Your task to perform on an android device: Empty the shopping cart on newegg.com. Add usb-c to usb-b to the cart on newegg.com, then select checkout. Image 0: 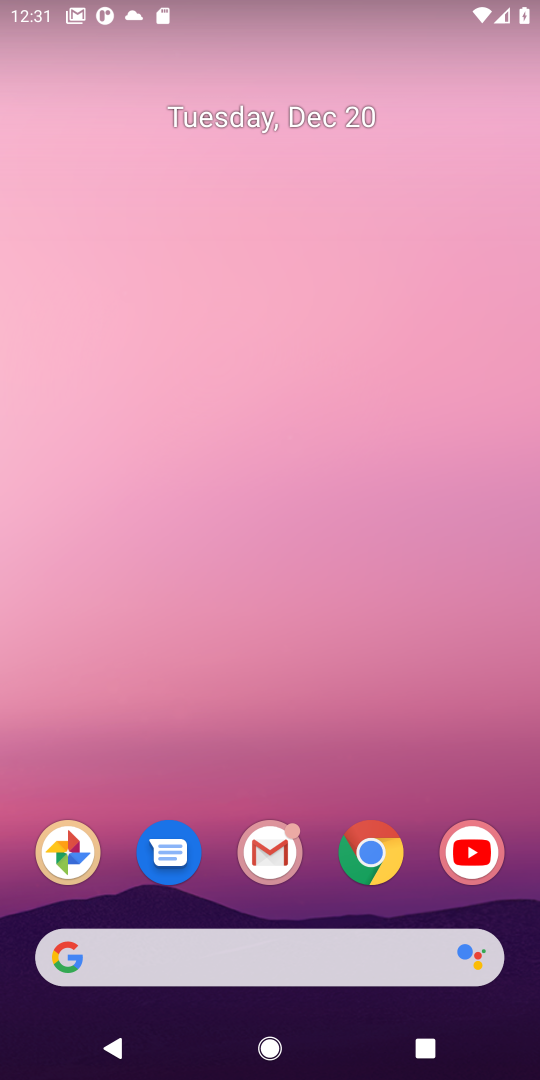
Step 0: click (363, 846)
Your task to perform on an android device: Empty the shopping cart on newegg.com. Add usb-c to usb-b to the cart on newegg.com, then select checkout. Image 1: 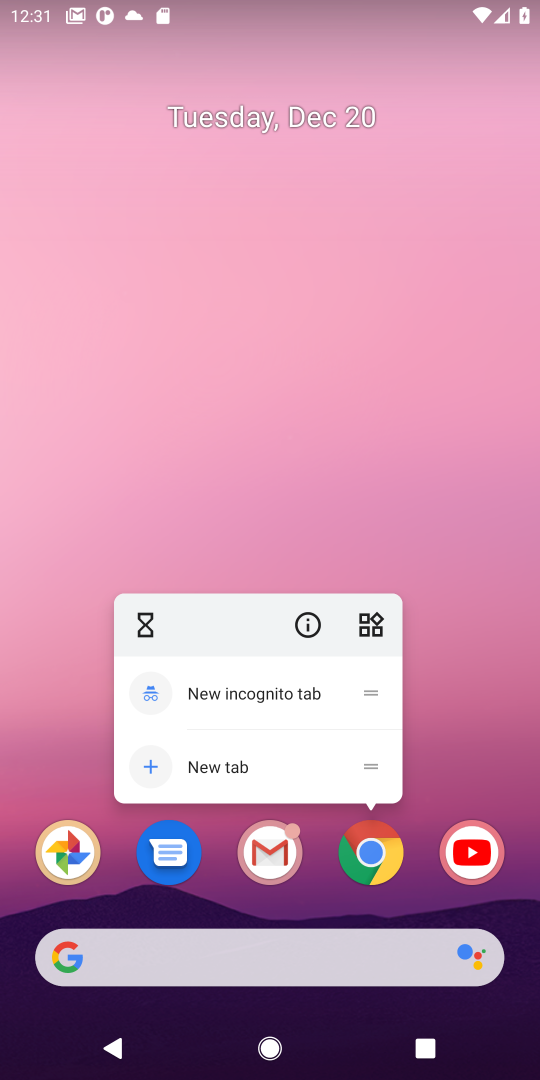
Step 1: click (367, 857)
Your task to perform on an android device: Empty the shopping cart on newegg.com. Add usb-c to usb-b to the cart on newegg.com, then select checkout. Image 2: 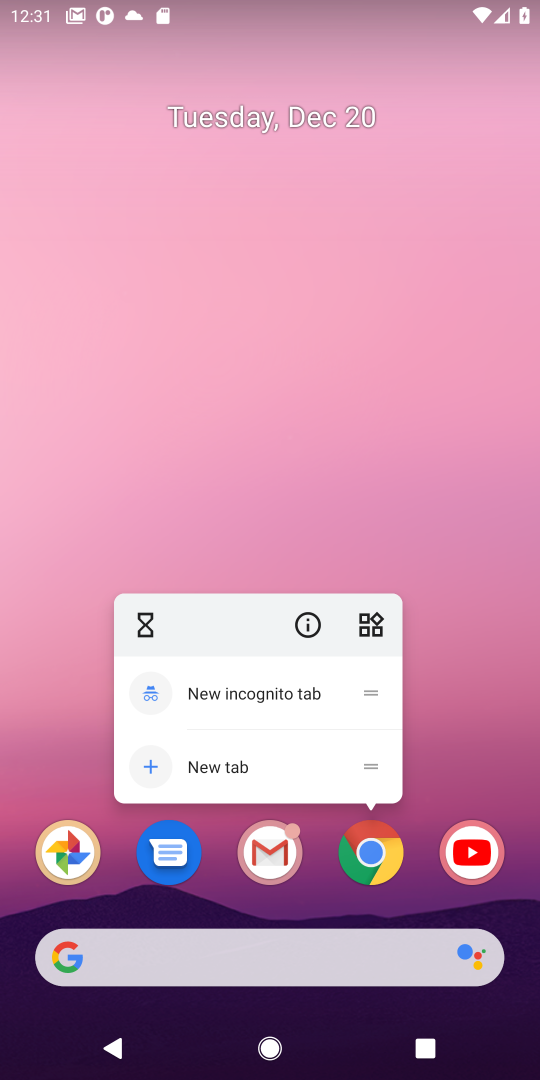
Step 2: click (372, 857)
Your task to perform on an android device: Empty the shopping cart on newegg.com. Add usb-c to usb-b to the cart on newegg.com, then select checkout. Image 3: 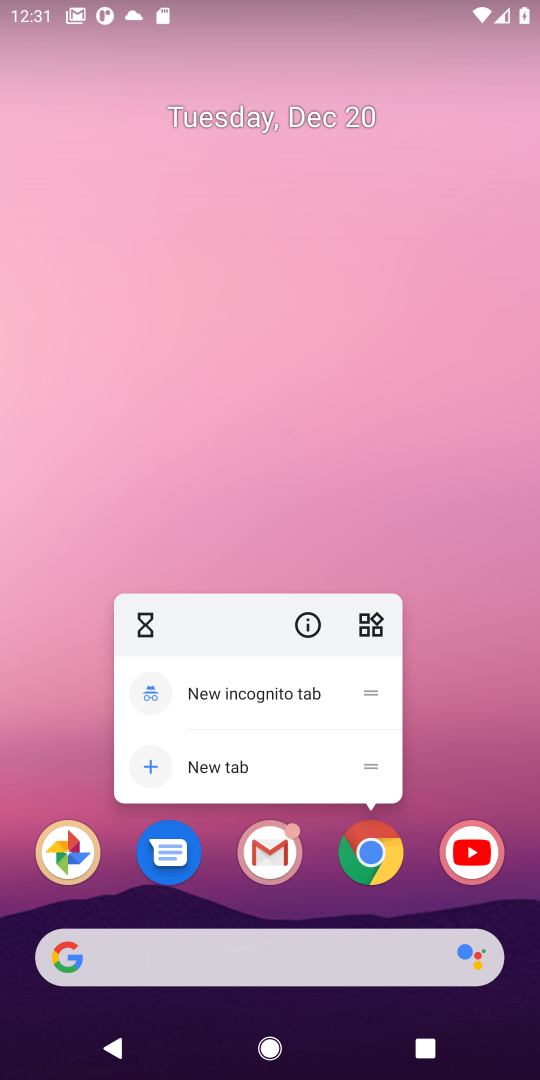
Step 3: click (499, 595)
Your task to perform on an android device: Empty the shopping cart on newegg.com. Add usb-c to usb-b to the cart on newegg.com, then select checkout. Image 4: 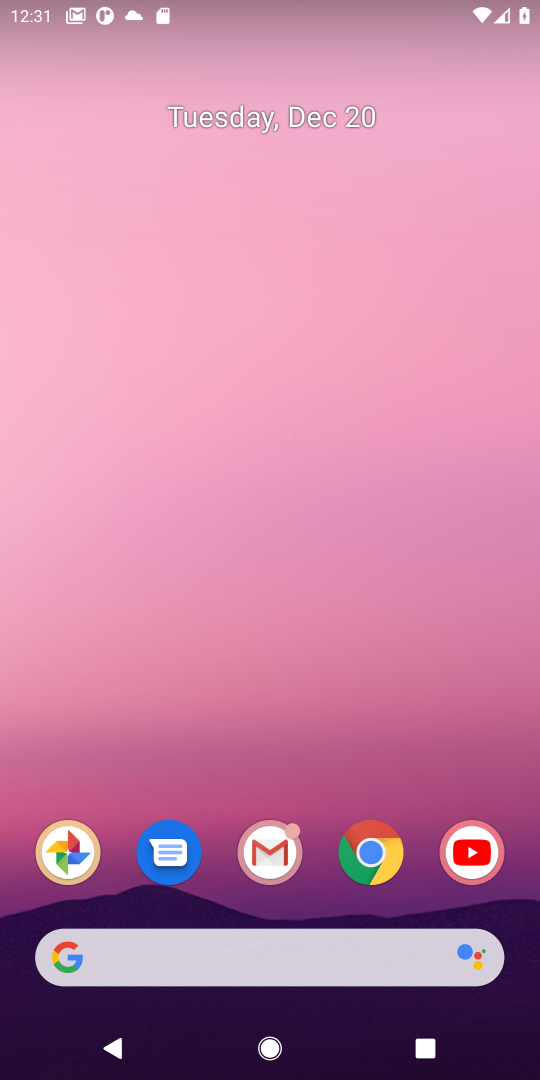
Step 4: click (369, 848)
Your task to perform on an android device: Empty the shopping cart on newegg.com. Add usb-c to usb-b to the cart on newegg.com, then select checkout. Image 5: 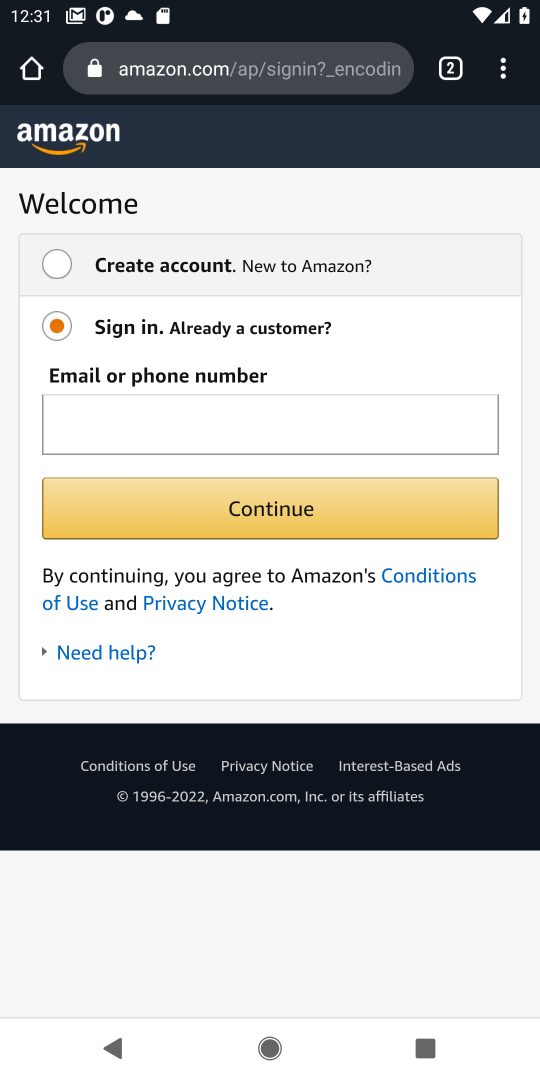
Step 5: click (198, 76)
Your task to perform on an android device: Empty the shopping cart on newegg.com. Add usb-c to usb-b to the cart on newegg.com, then select checkout. Image 6: 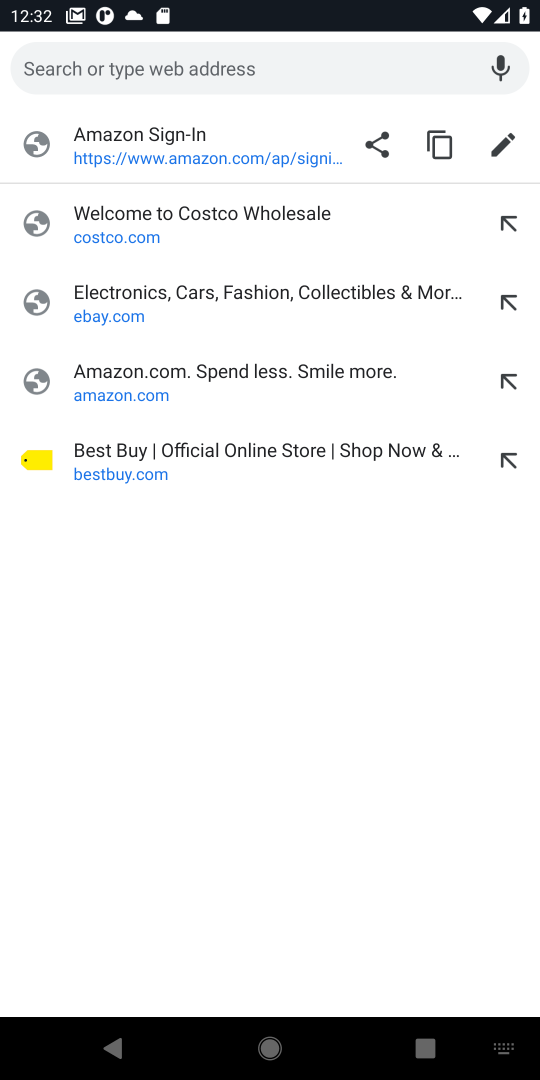
Step 6: type "newegg.com"
Your task to perform on an android device: Empty the shopping cart on newegg.com. Add usb-c to usb-b to the cart on newegg.com, then select checkout. Image 7: 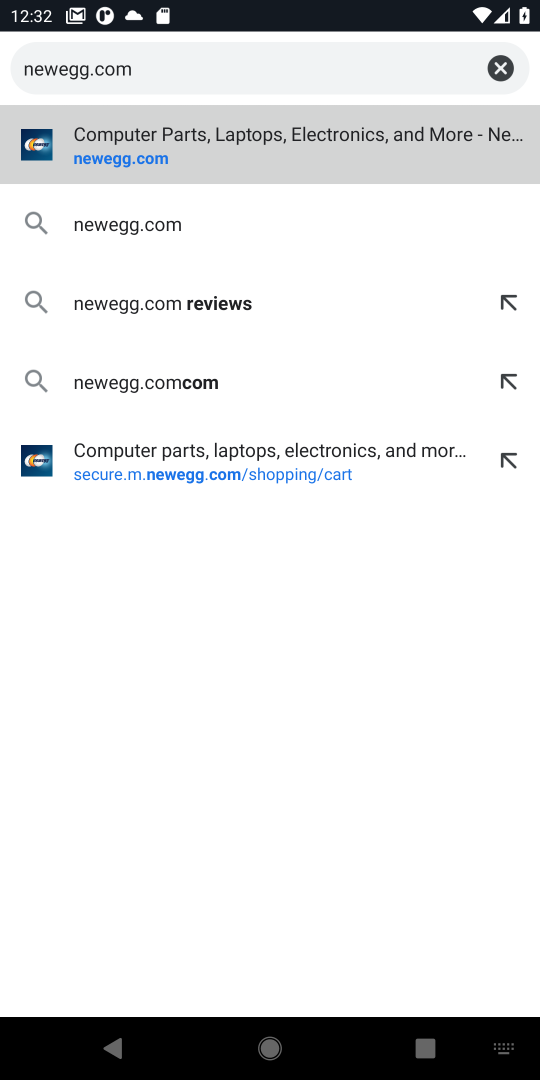
Step 7: click (128, 172)
Your task to perform on an android device: Empty the shopping cart on newegg.com. Add usb-c to usb-b to the cart on newegg.com, then select checkout. Image 8: 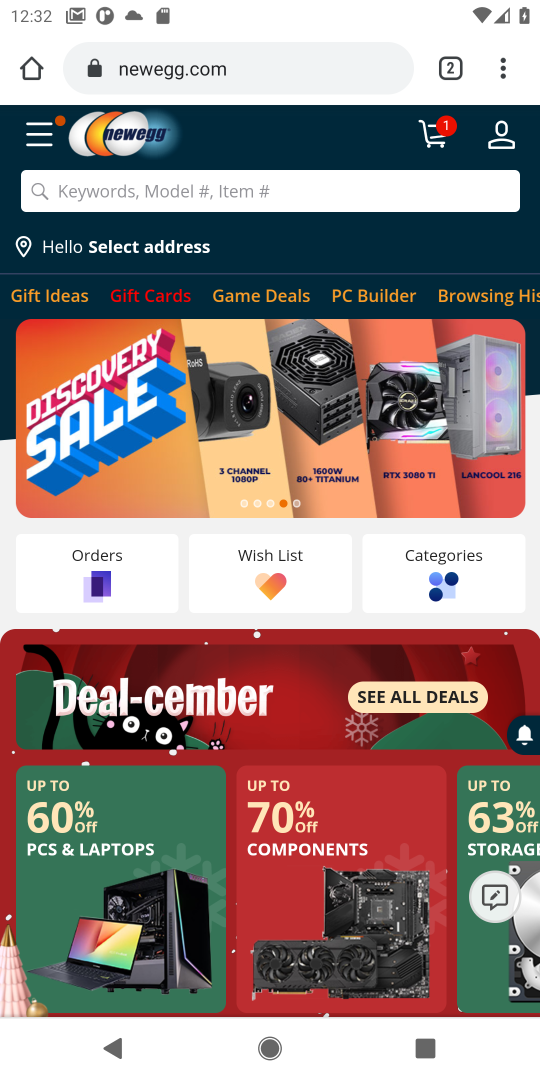
Step 8: click (433, 143)
Your task to perform on an android device: Empty the shopping cart on newegg.com. Add usb-c to usb-b to the cart on newegg.com, then select checkout. Image 9: 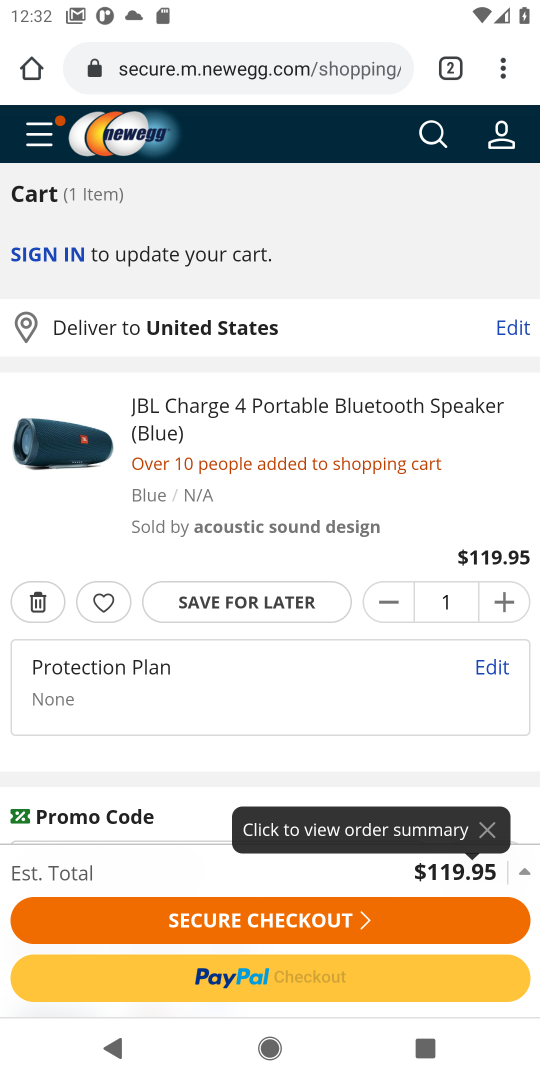
Step 9: click (39, 604)
Your task to perform on an android device: Empty the shopping cart on newegg.com. Add usb-c to usb-b to the cart on newegg.com, then select checkout. Image 10: 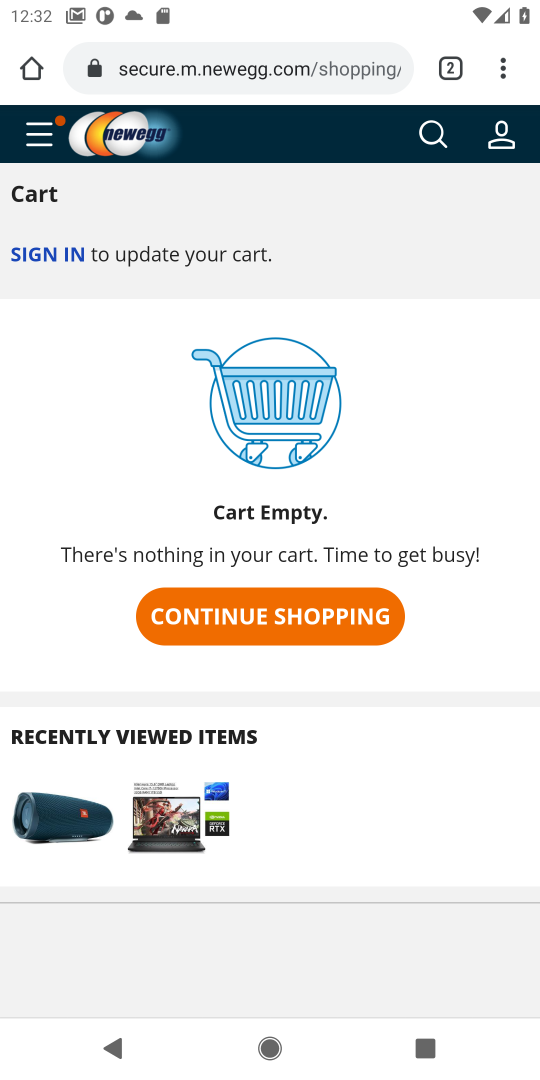
Step 10: click (422, 133)
Your task to perform on an android device: Empty the shopping cart on newegg.com. Add usb-c to usb-b to the cart on newegg.com, then select checkout. Image 11: 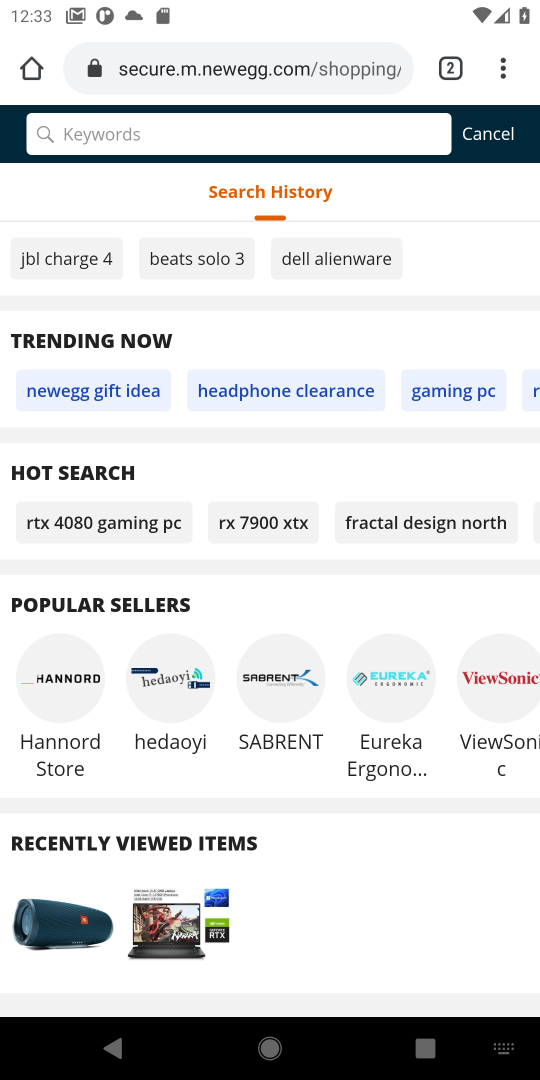
Step 11: type "usb-c to usb-b"
Your task to perform on an android device: Empty the shopping cart on newegg.com. Add usb-c to usb-b to the cart on newegg.com, then select checkout. Image 12: 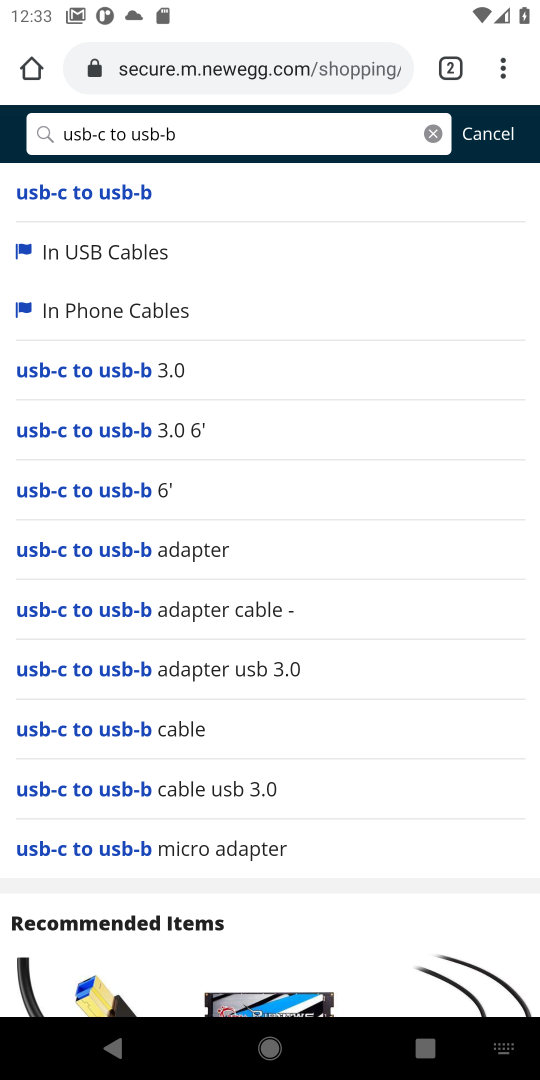
Step 12: click (99, 201)
Your task to perform on an android device: Empty the shopping cart on newegg.com. Add usb-c to usb-b to the cart on newegg.com, then select checkout. Image 13: 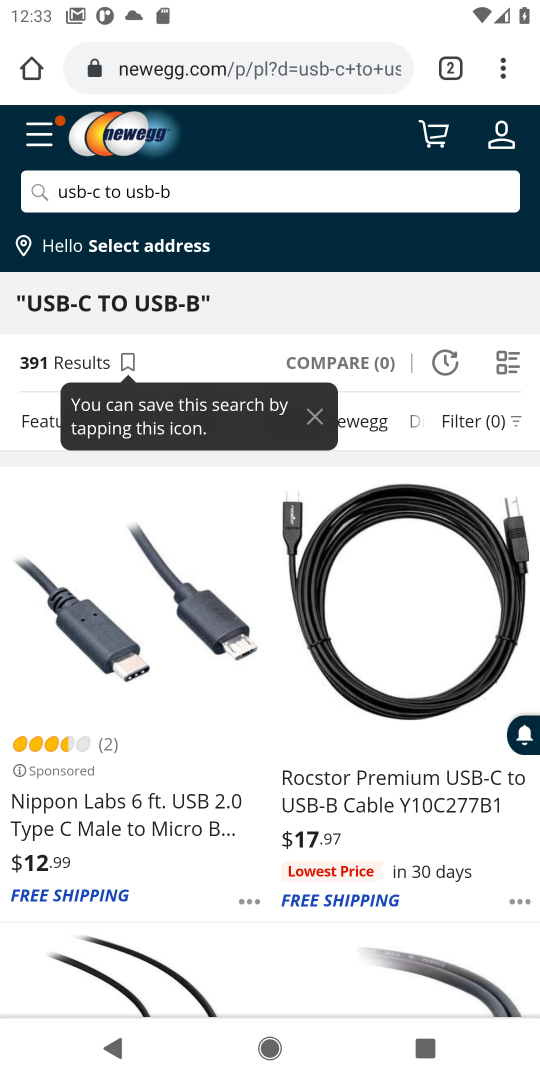
Step 13: click (363, 796)
Your task to perform on an android device: Empty the shopping cart on newegg.com. Add usb-c to usb-b to the cart on newegg.com, then select checkout. Image 14: 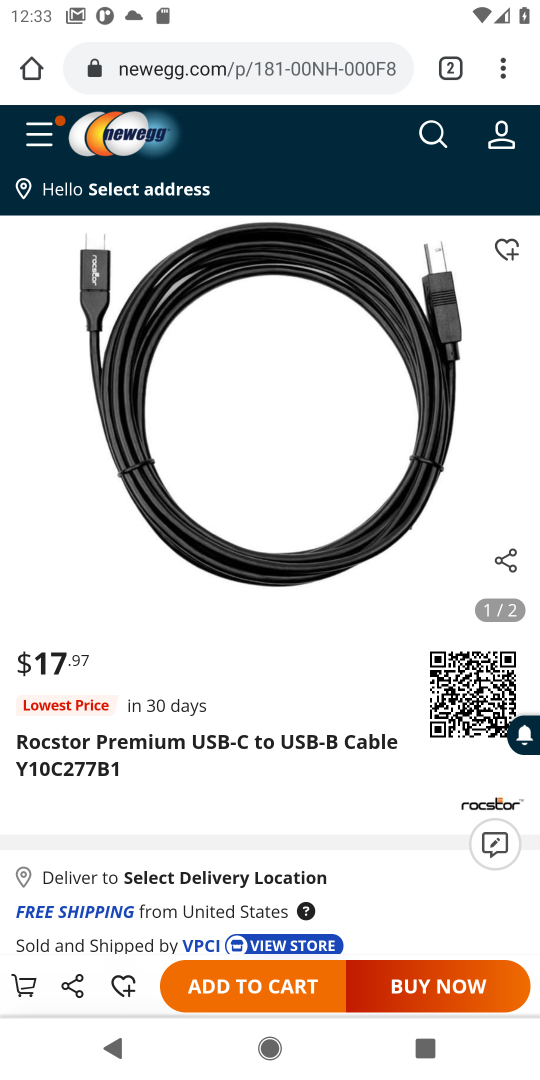
Step 14: click (265, 997)
Your task to perform on an android device: Empty the shopping cart on newegg.com. Add usb-c to usb-b to the cart on newegg.com, then select checkout. Image 15: 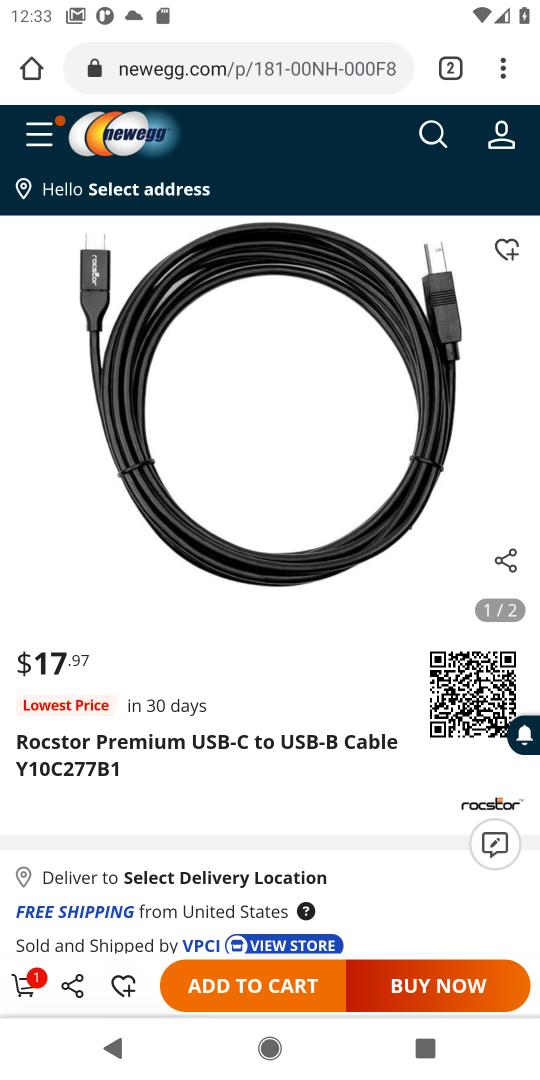
Step 15: click (19, 986)
Your task to perform on an android device: Empty the shopping cart on newegg.com. Add usb-c to usb-b to the cart on newegg.com, then select checkout. Image 16: 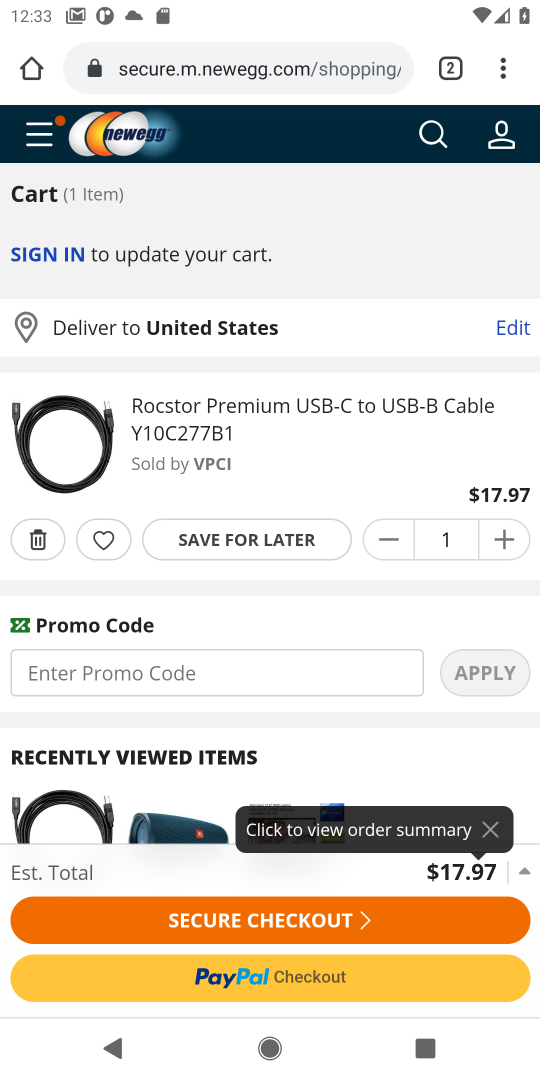
Step 16: click (269, 811)
Your task to perform on an android device: Empty the shopping cart on newegg.com. Add usb-c to usb-b to the cart on newegg.com, then select checkout. Image 17: 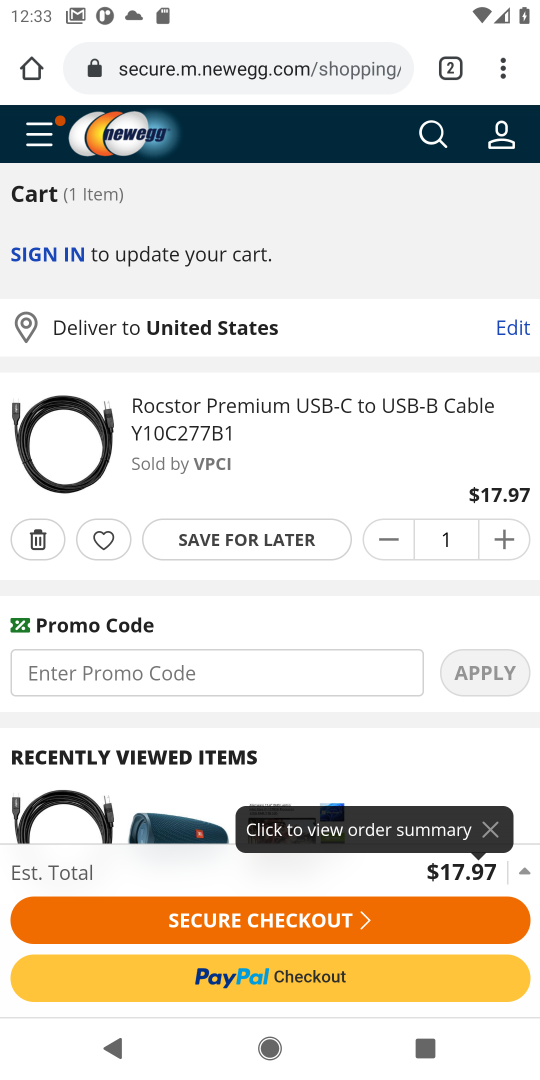
Step 17: click (242, 918)
Your task to perform on an android device: Empty the shopping cart on newegg.com. Add usb-c to usb-b to the cart on newegg.com, then select checkout. Image 18: 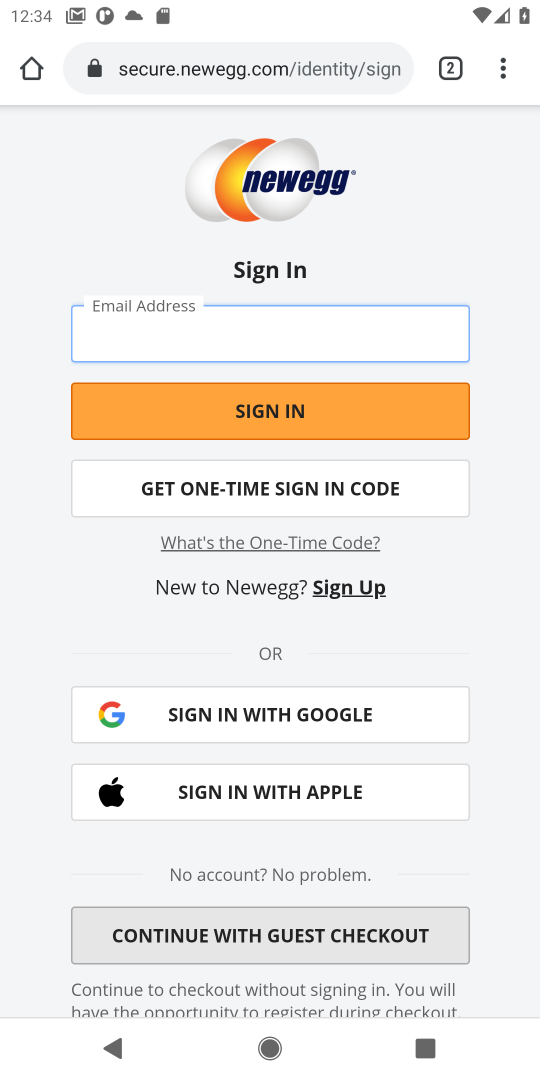
Step 18: task complete